Your task to perform on an android device: search for starred emails in the gmail app Image 0: 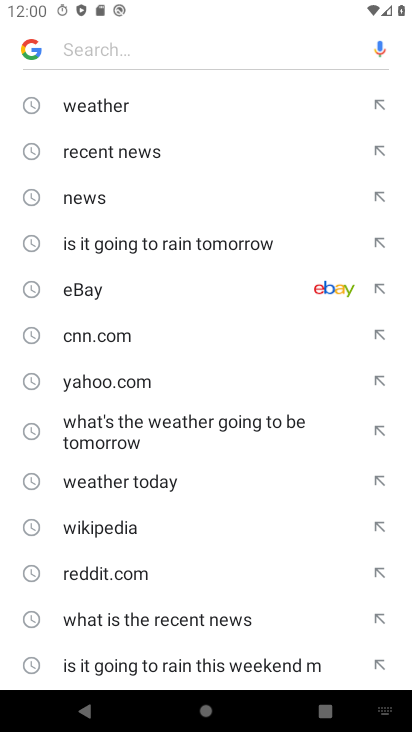
Step 0: press back button
Your task to perform on an android device: search for starred emails in the gmail app Image 1: 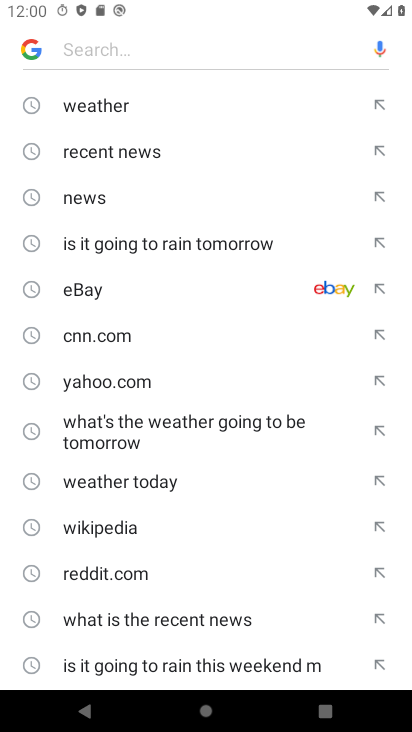
Step 1: press back button
Your task to perform on an android device: search for starred emails in the gmail app Image 2: 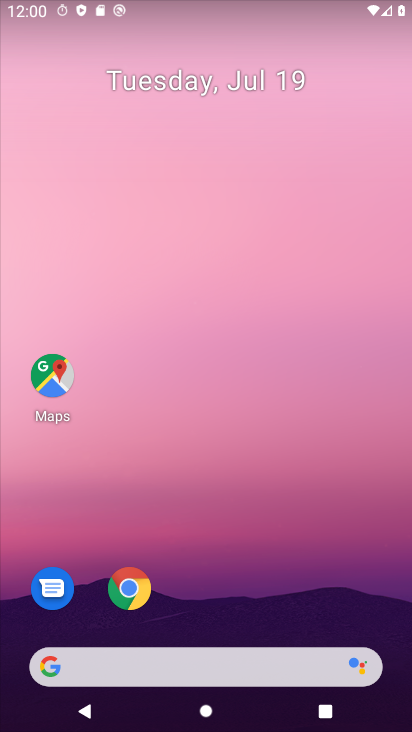
Step 2: drag from (260, 529) to (213, 157)
Your task to perform on an android device: search for starred emails in the gmail app Image 3: 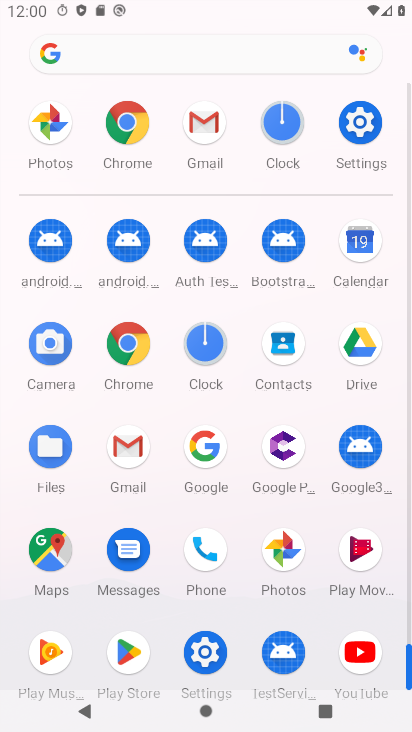
Step 3: click (127, 456)
Your task to perform on an android device: search for starred emails in the gmail app Image 4: 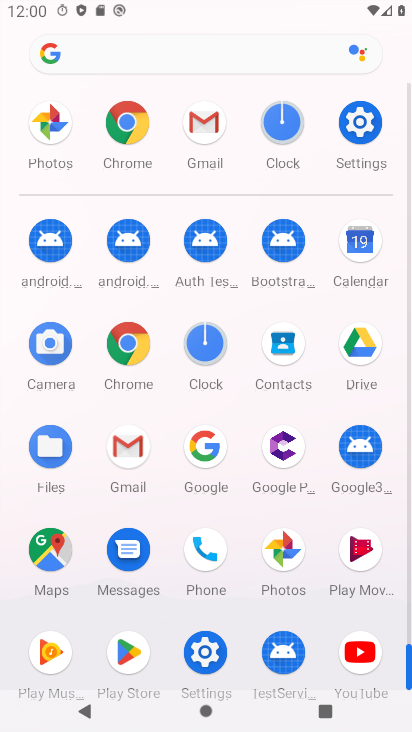
Step 4: click (130, 455)
Your task to perform on an android device: search for starred emails in the gmail app Image 5: 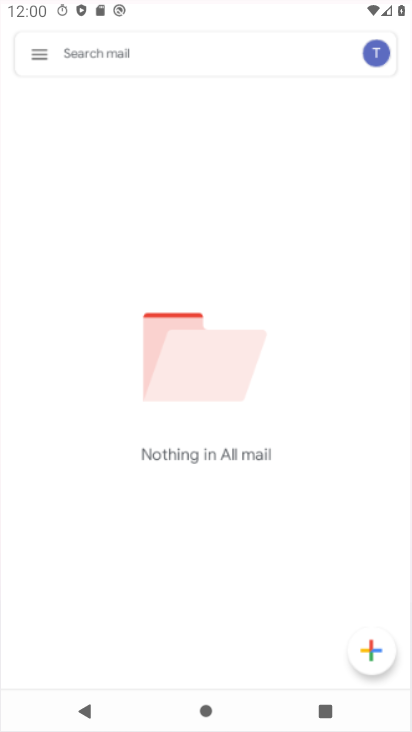
Step 5: click (131, 455)
Your task to perform on an android device: search for starred emails in the gmail app Image 6: 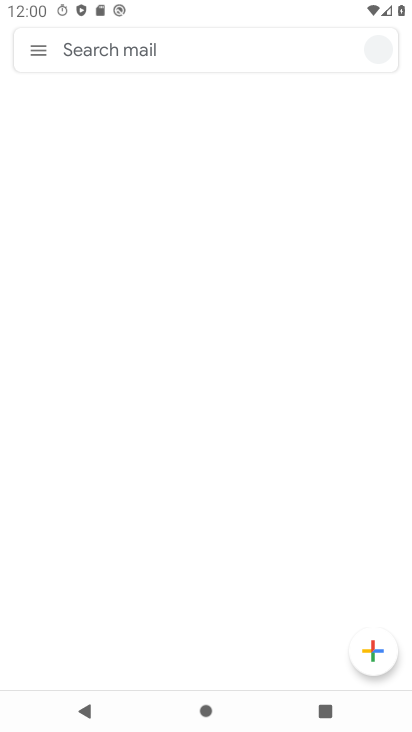
Step 6: click (132, 457)
Your task to perform on an android device: search for starred emails in the gmail app Image 7: 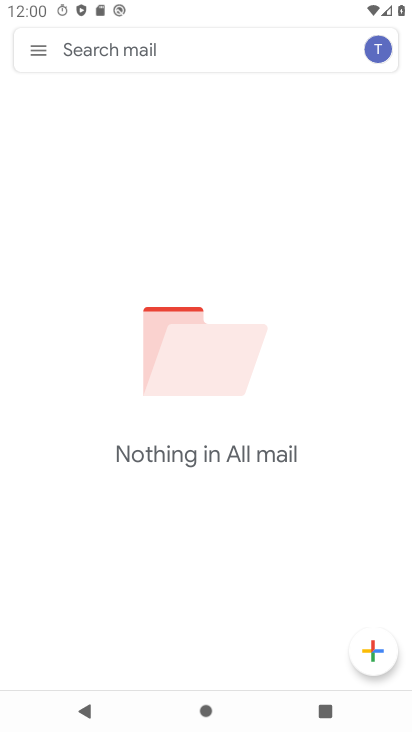
Step 7: click (37, 50)
Your task to perform on an android device: search for starred emails in the gmail app Image 8: 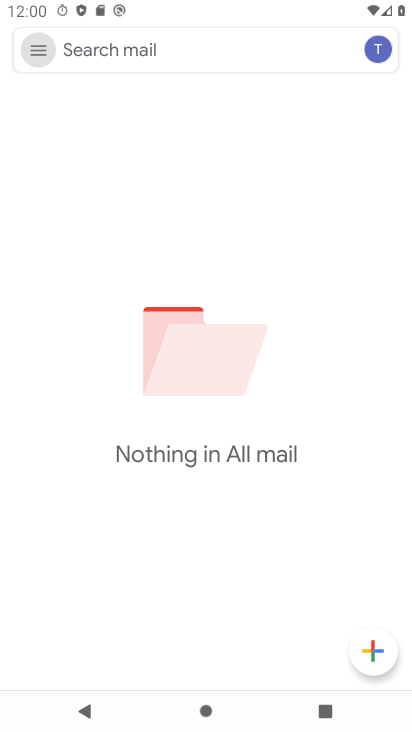
Step 8: click (36, 49)
Your task to perform on an android device: search for starred emails in the gmail app Image 9: 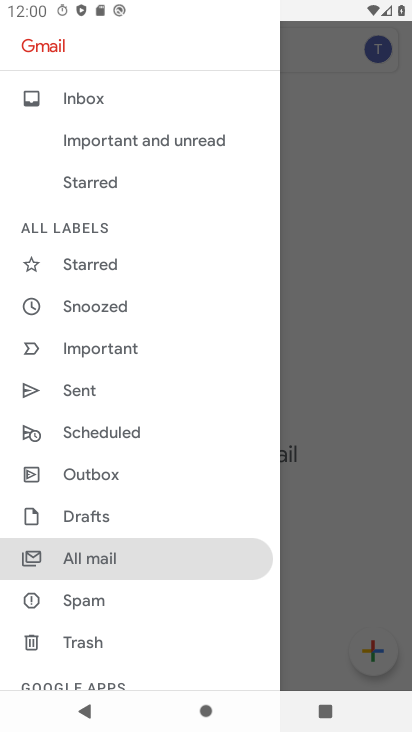
Step 9: click (103, 272)
Your task to perform on an android device: search for starred emails in the gmail app Image 10: 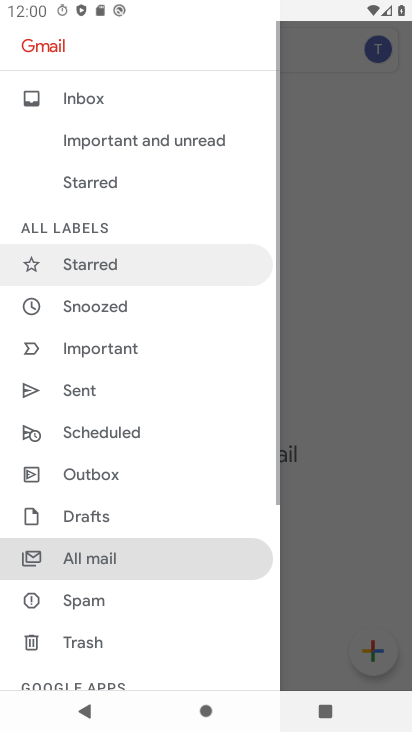
Step 10: click (103, 272)
Your task to perform on an android device: search for starred emails in the gmail app Image 11: 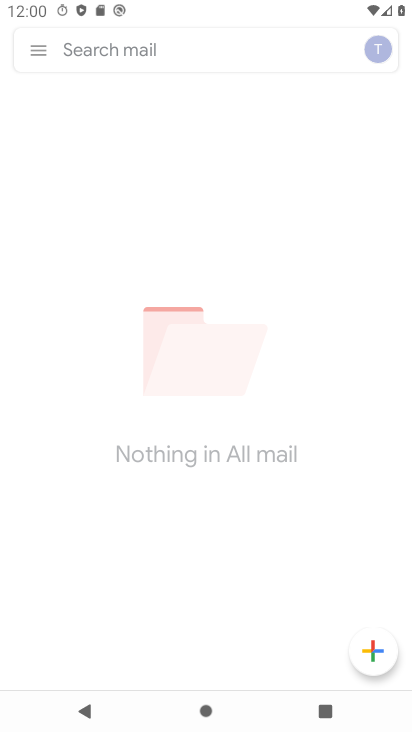
Step 11: click (103, 272)
Your task to perform on an android device: search for starred emails in the gmail app Image 12: 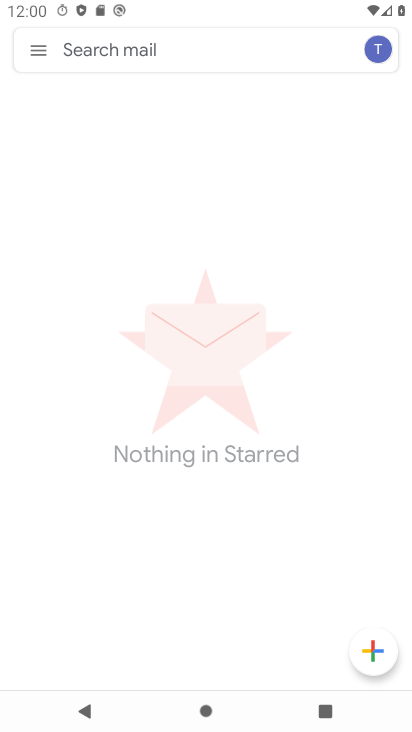
Step 12: click (105, 273)
Your task to perform on an android device: search for starred emails in the gmail app Image 13: 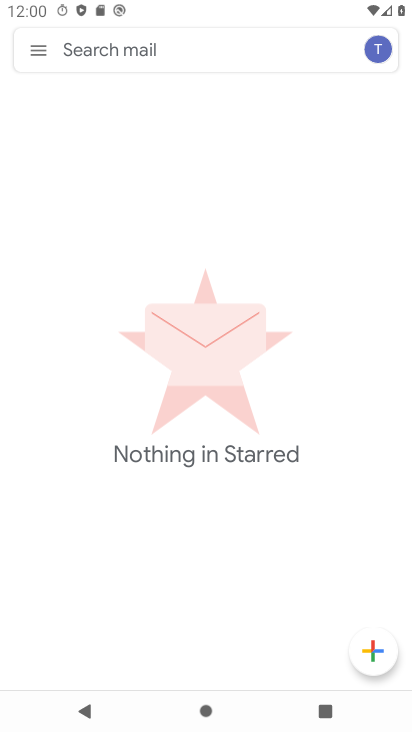
Step 13: task complete